Your task to perform on an android device: open a bookmark in the chrome app Image 0: 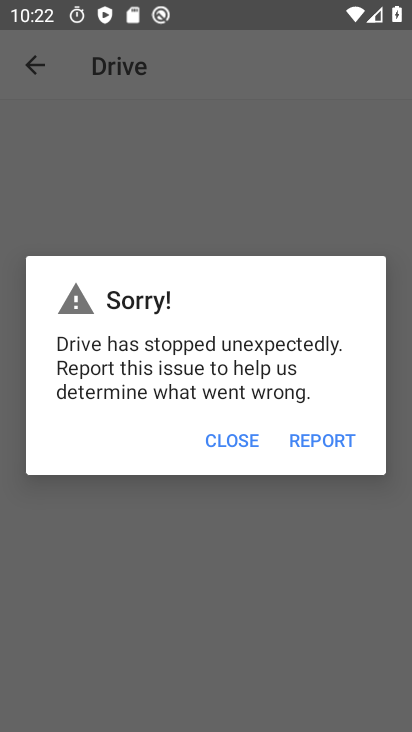
Step 0: press home button
Your task to perform on an android device: open a bookmark in the chrome app Image 1: 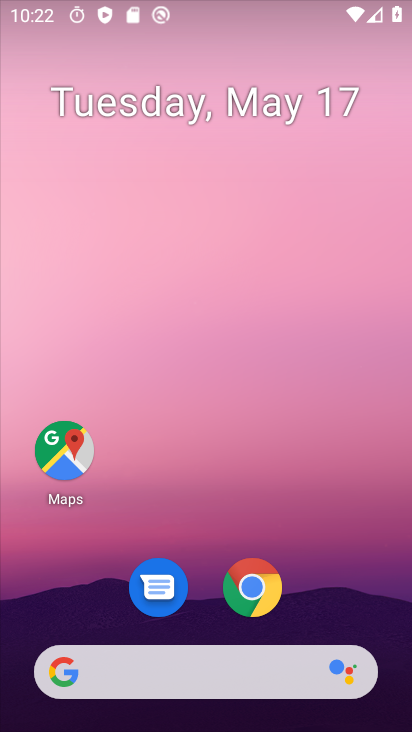
Step 1: drag from (325, 579) to (309, 212)
Your task to perform on an android device: open a bookmark in the chrome app Image 2: 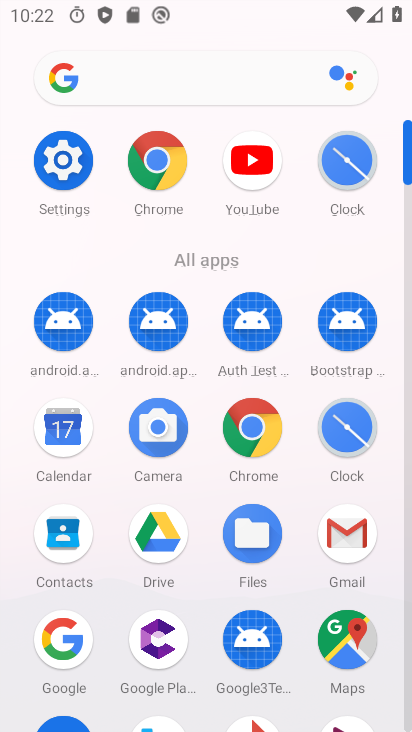
Step 2: click (247, 431)
Your task to perform on an android device: open a bookmark in the chrome app Image 3: 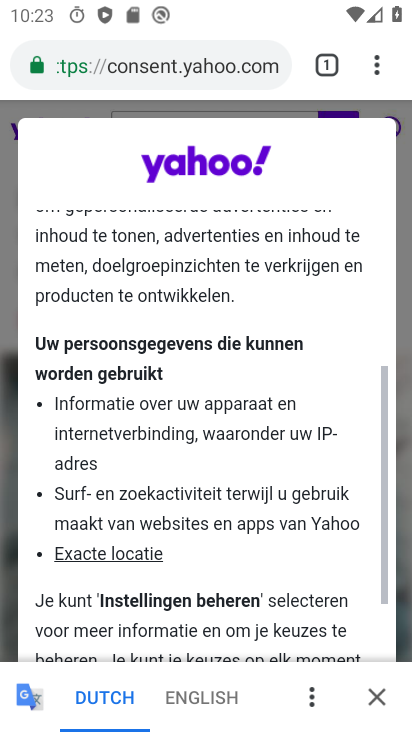
Step 3: task complete